Your task to perform on an android device: Is it going to rain today? Image 0: 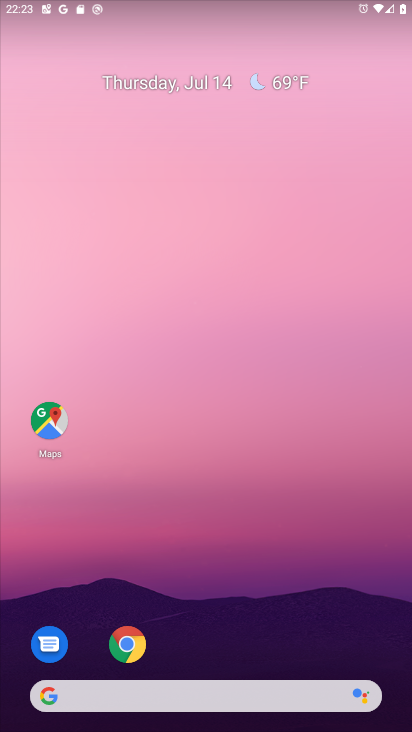
Step 0: drag from (266, 5) to (212, 497)
Your task to perform on an android device: Is it going to rain today? Image 1: 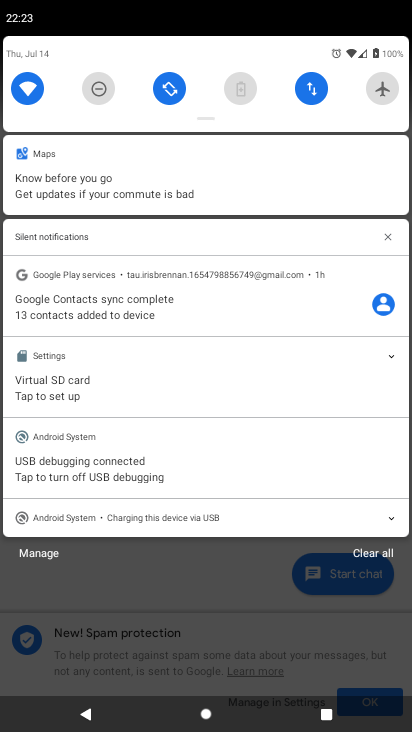
Step 1: press home button
Your task to perform on an android device: Is it going to rain today? Image 2: 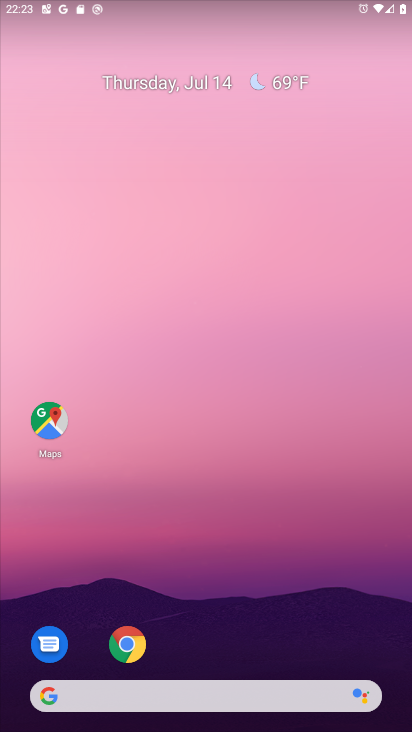
Step 2: click (195, 689)
Your task to perform on an android device: Is it going to rain today? Image 3: 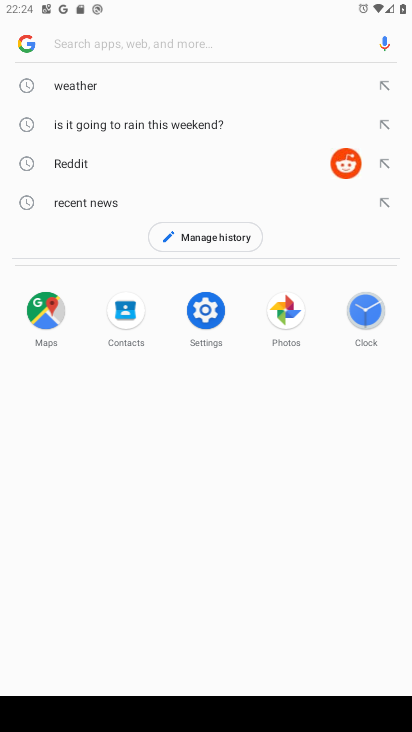
Step 3: click (83, 76)
Your task to perform on an android device: Is it going to rain today? Image 4: 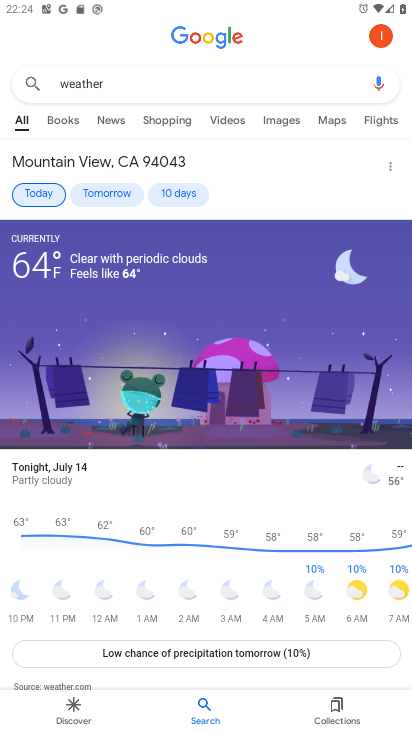
Step 4: task complete